Your task to perform on an android device: Go to display settings Image 0: 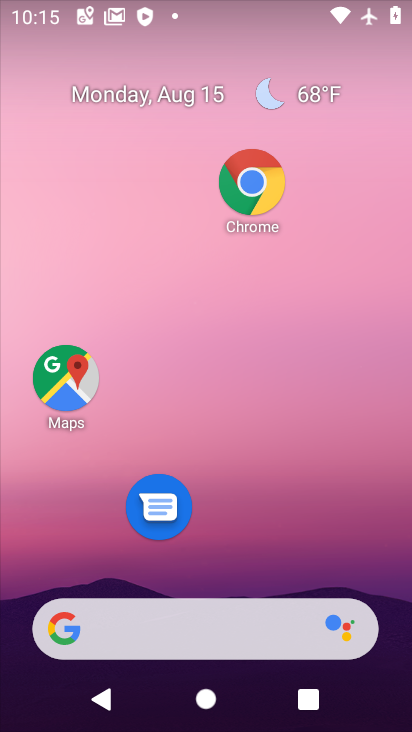
Step 0: drag from (306, 420) to (297, 41)
Your task to perform on an android device: Go to display settings Image 1: 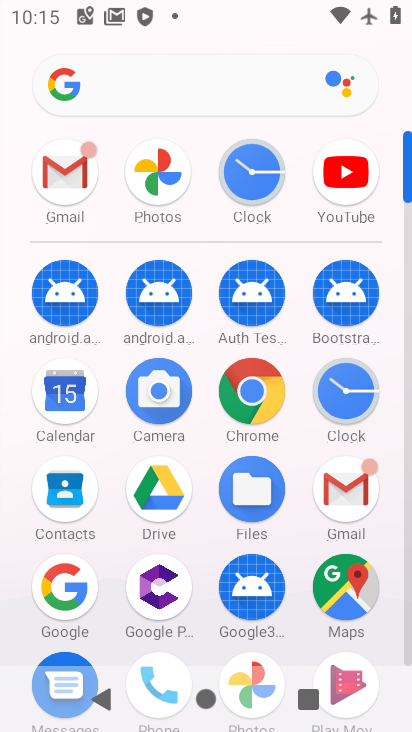
Step 1: click (411, 662)
Your task to perform on an android device: Go to display settings Image 2: 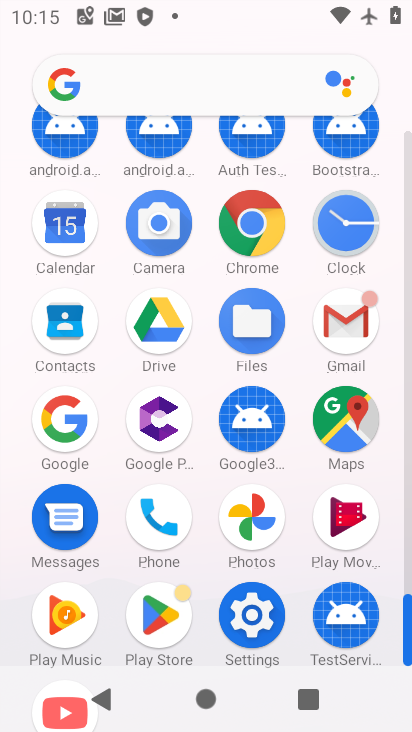
Step 2: click (257, 608)
Your task to perform on an android device: Go to display settings Image 3: 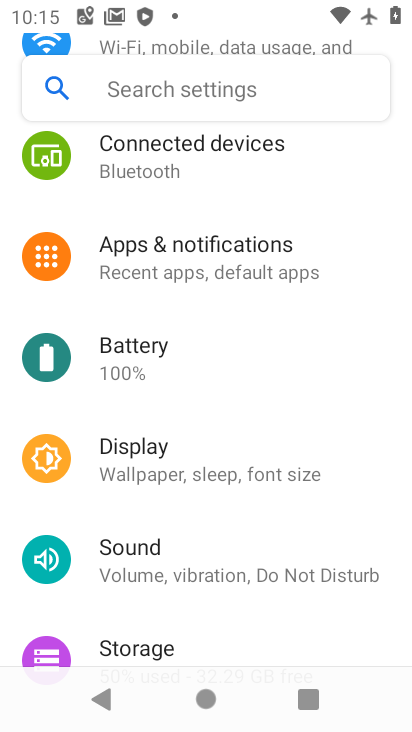
Step 3: click (184, 474)
Your task to perform on an android device: Go to display settings Image 4: 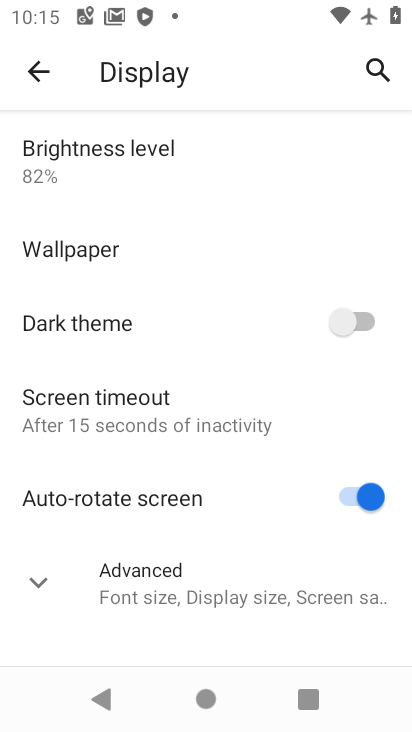
Step 4: task complete